Your task to perform on an android device: toggle location history Image 0: 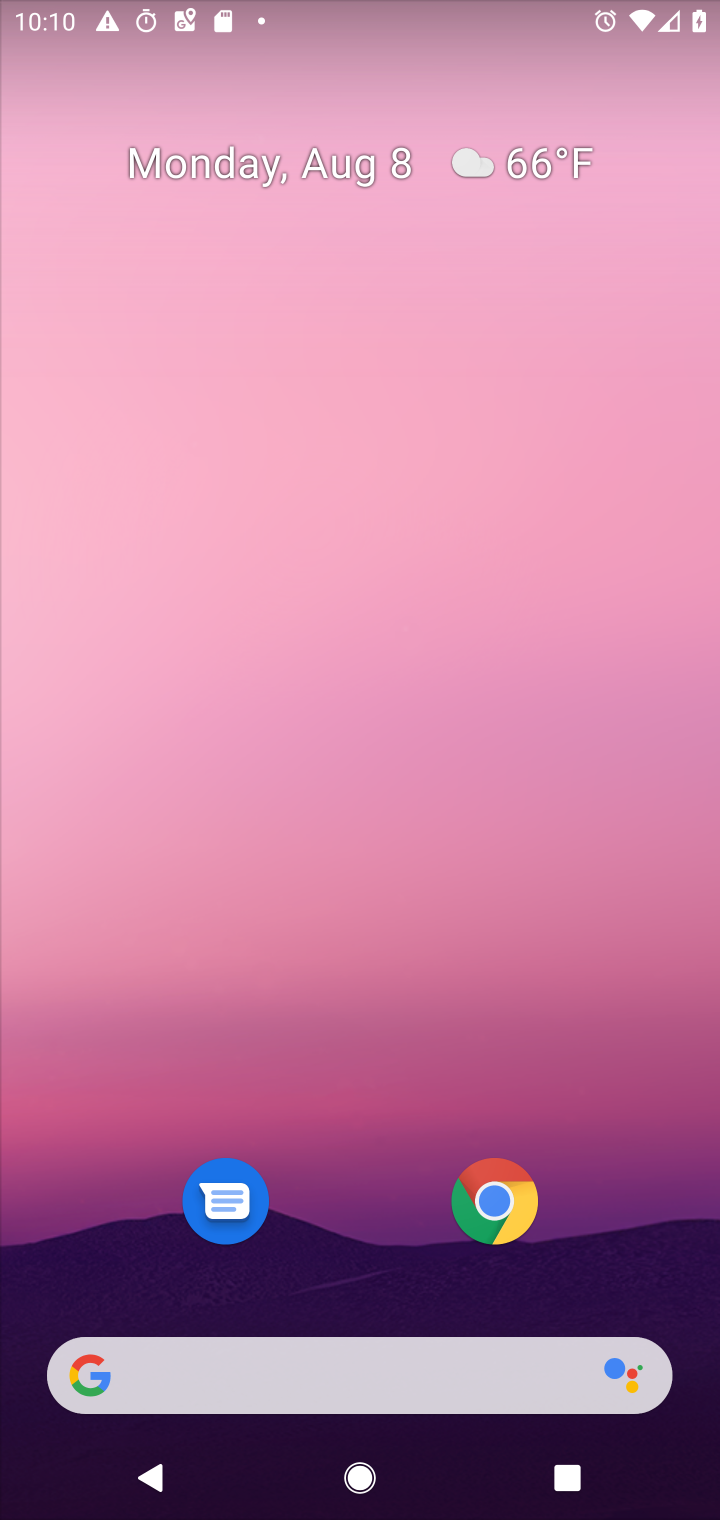
Step 0: press home button
Your task to perform on an android device: toggle location history Image 1: 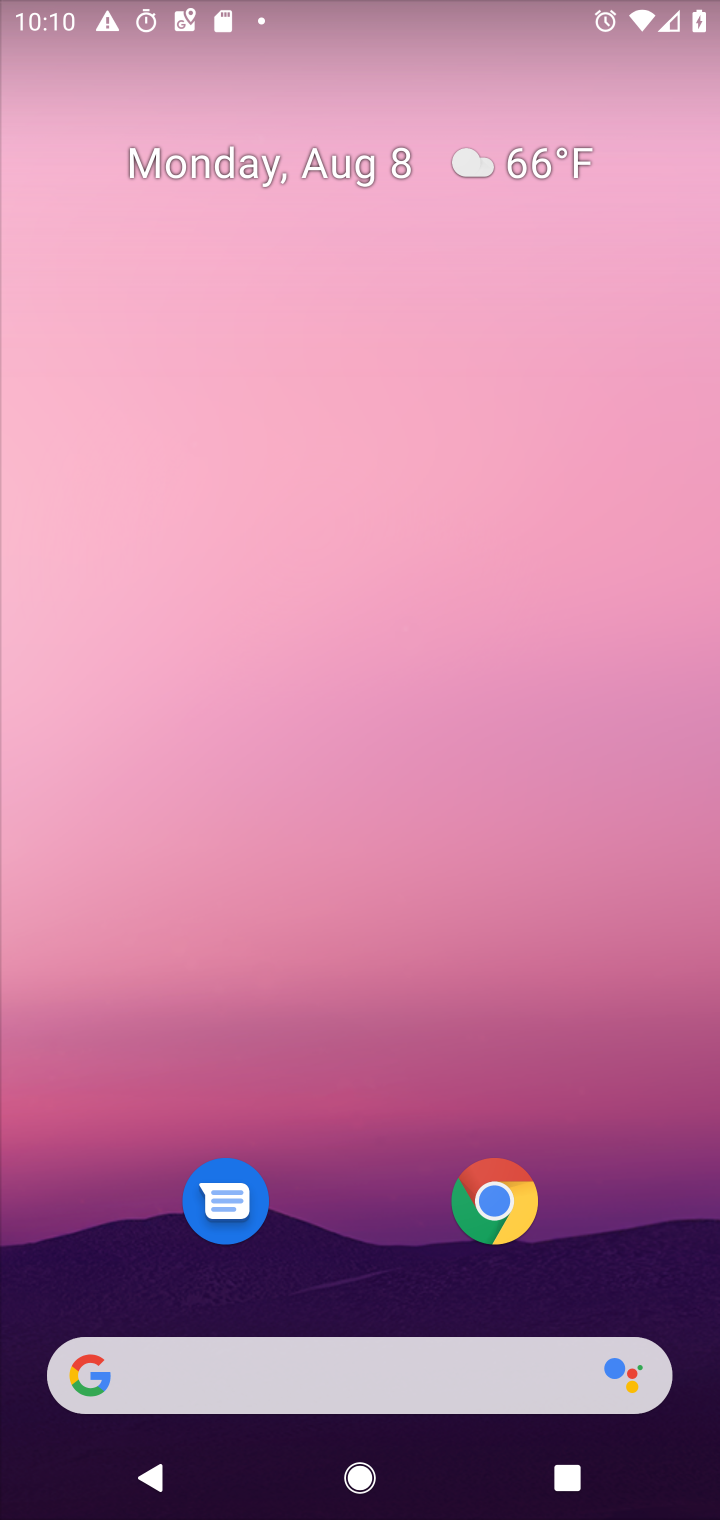
Step 1: drag from (367, 1234) to (424, 310)
Your task to perform on an android device: toggle location history Image 2: 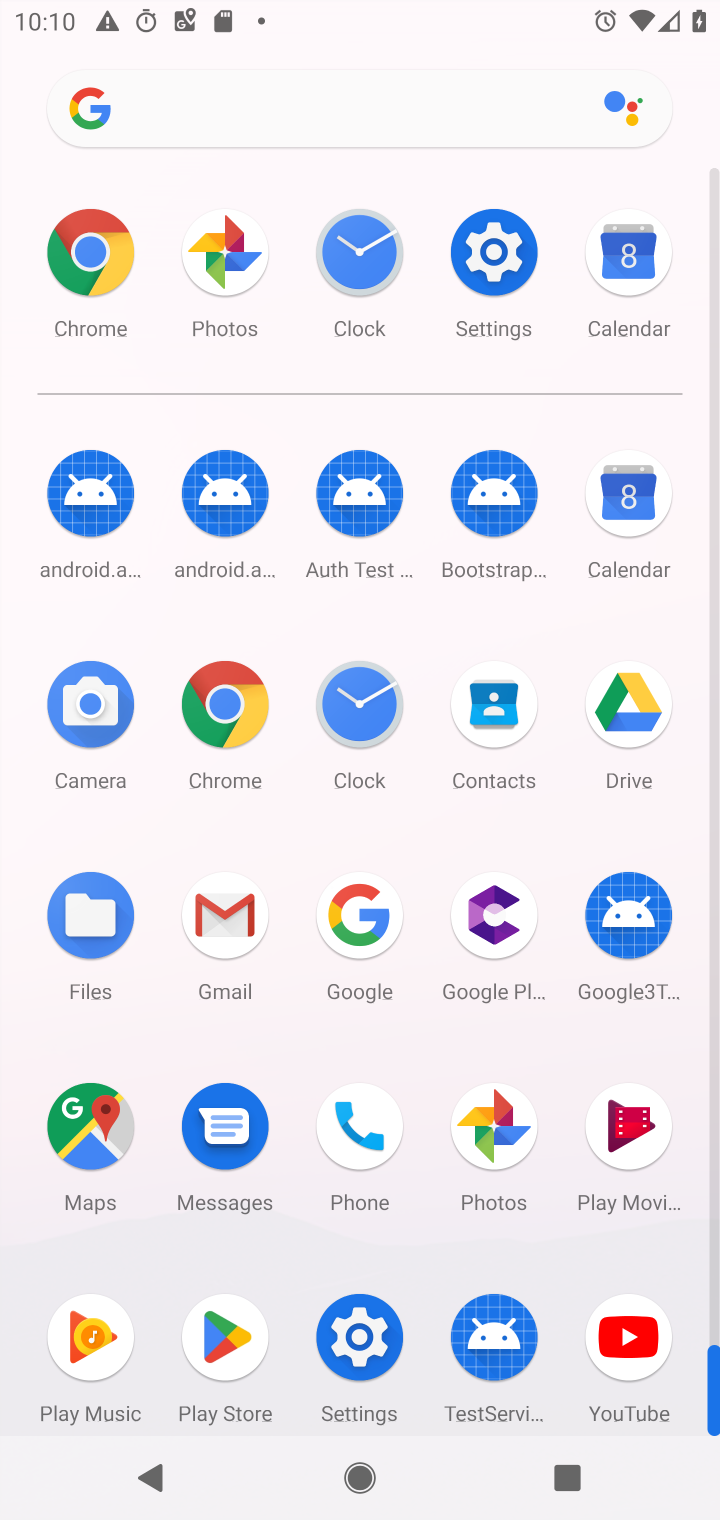
Step 2: click (496, 245)
Your task to perform on an android device: toggle location history Image 3: 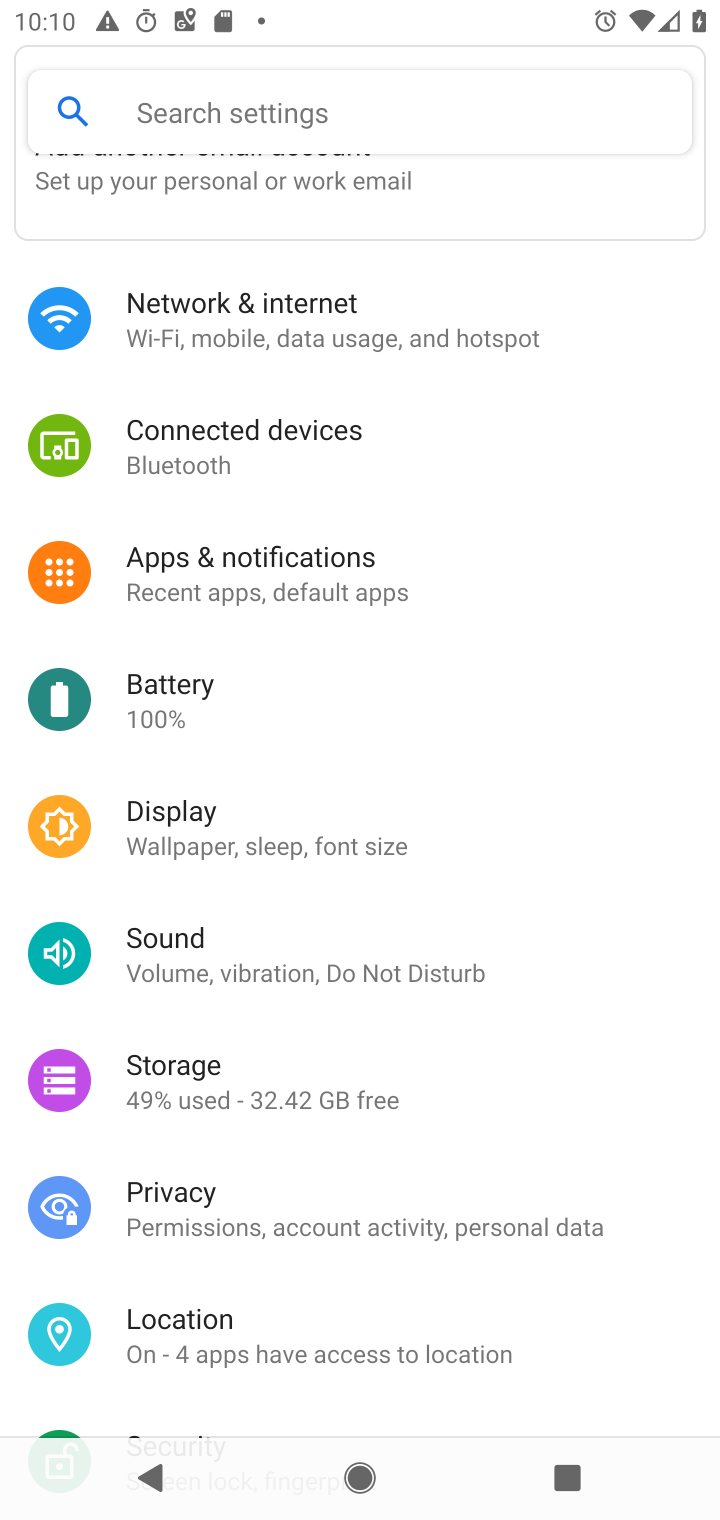
Step 3: drag from (605, 616) to (614, 484)
Your task to perform on an android device: toggle location history Image 4: 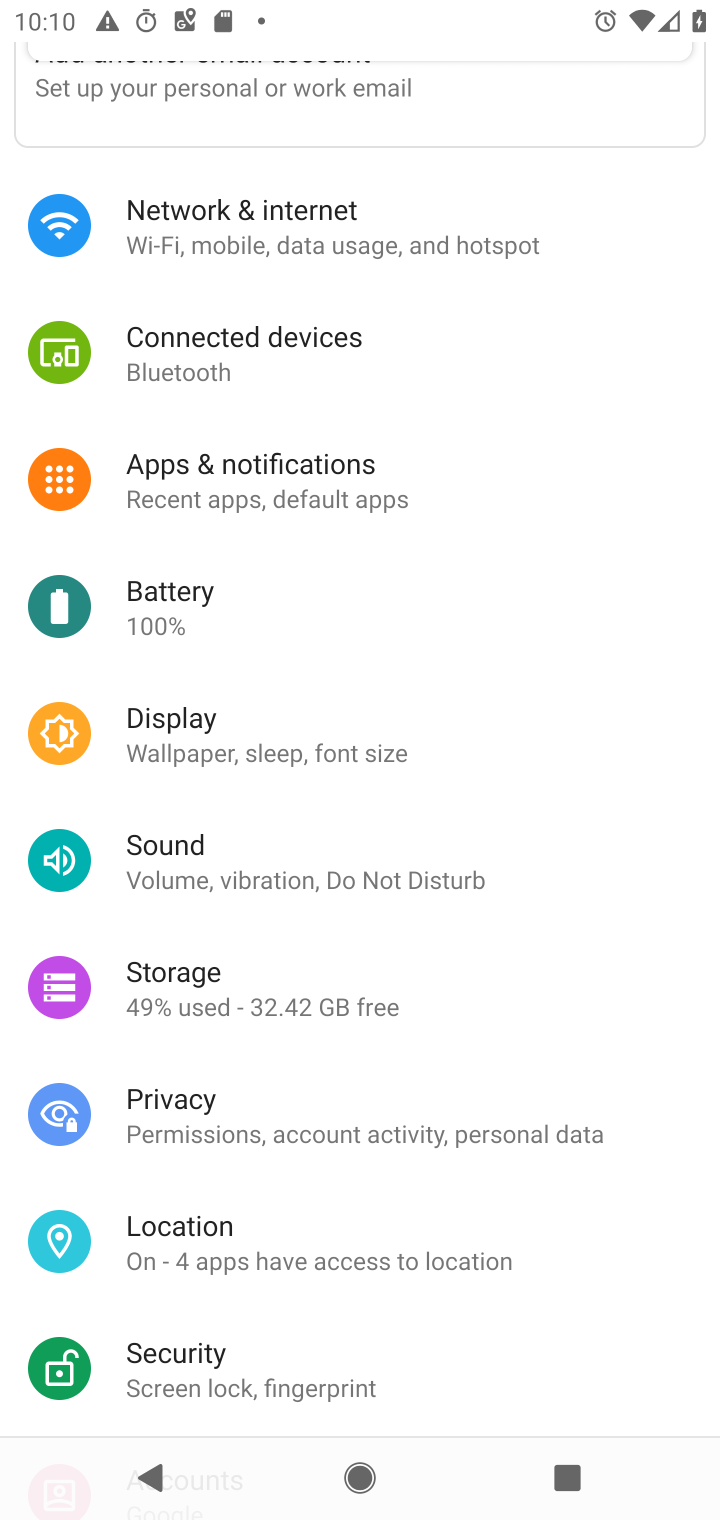
Step 4: drag from (610, 817) to (608, 573)
Your task to perform on an android device: toggle location history Image 5: 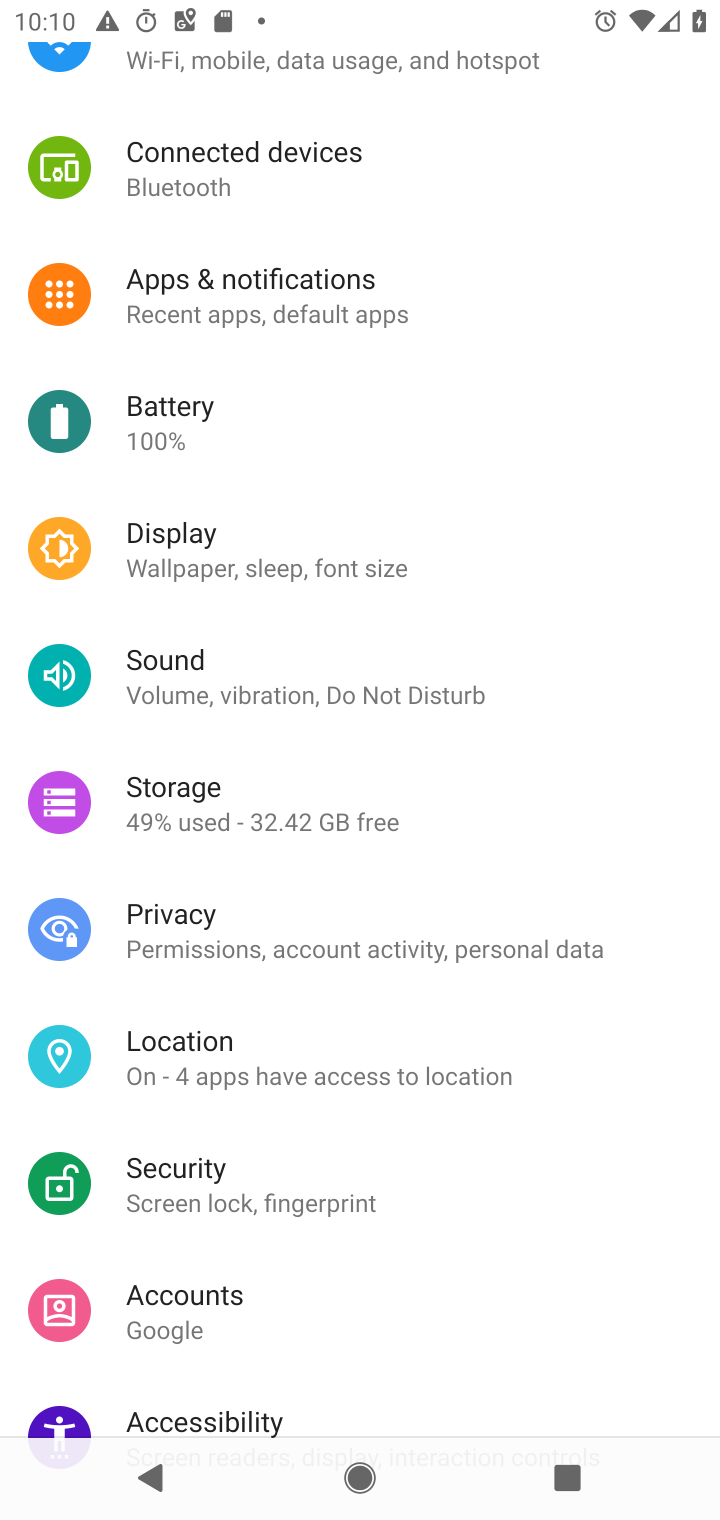
Step 5: drag from (622, 870) to (634, 584)
Your task to perform on an android device: toggle location history Image 6: 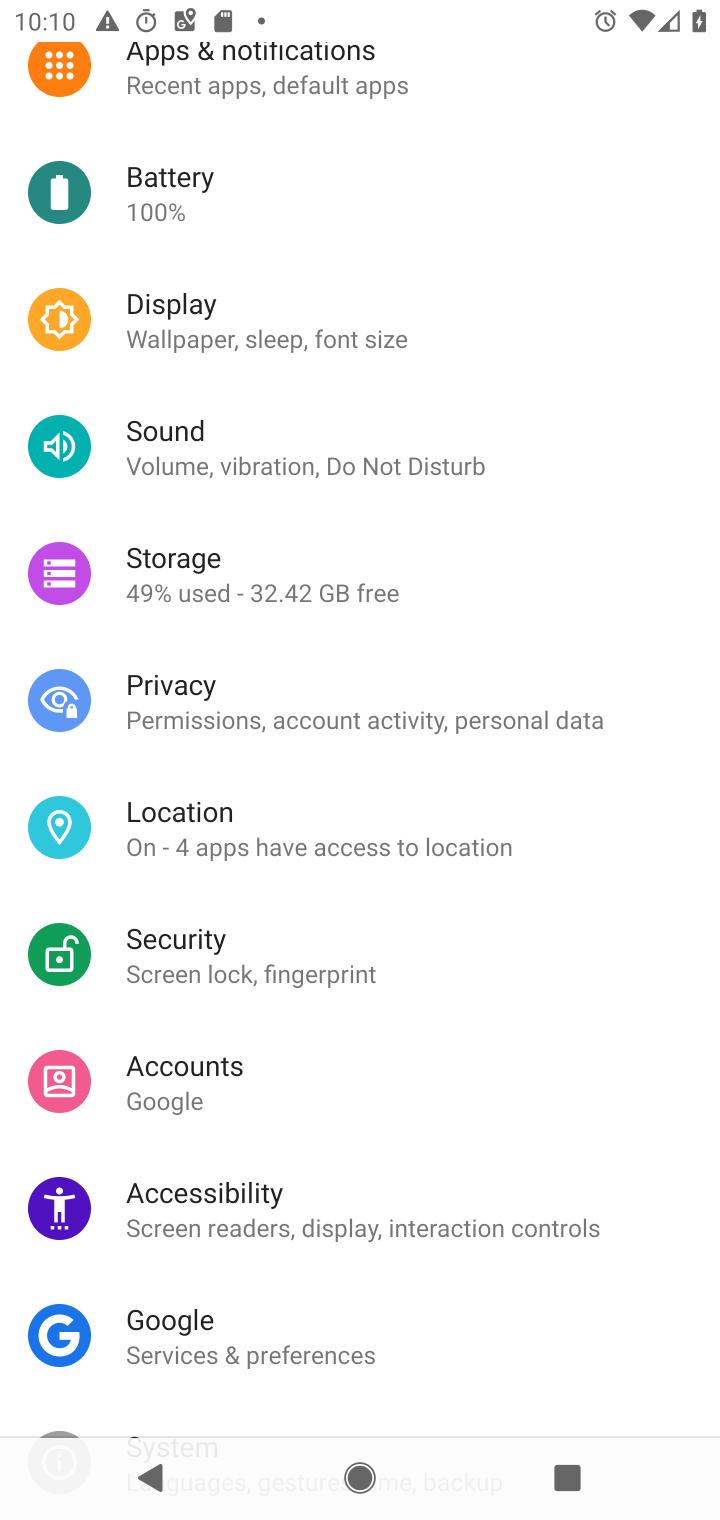
Step 6: click (235, 819)
Your task to perform on an android device: toggle location history Image 7: 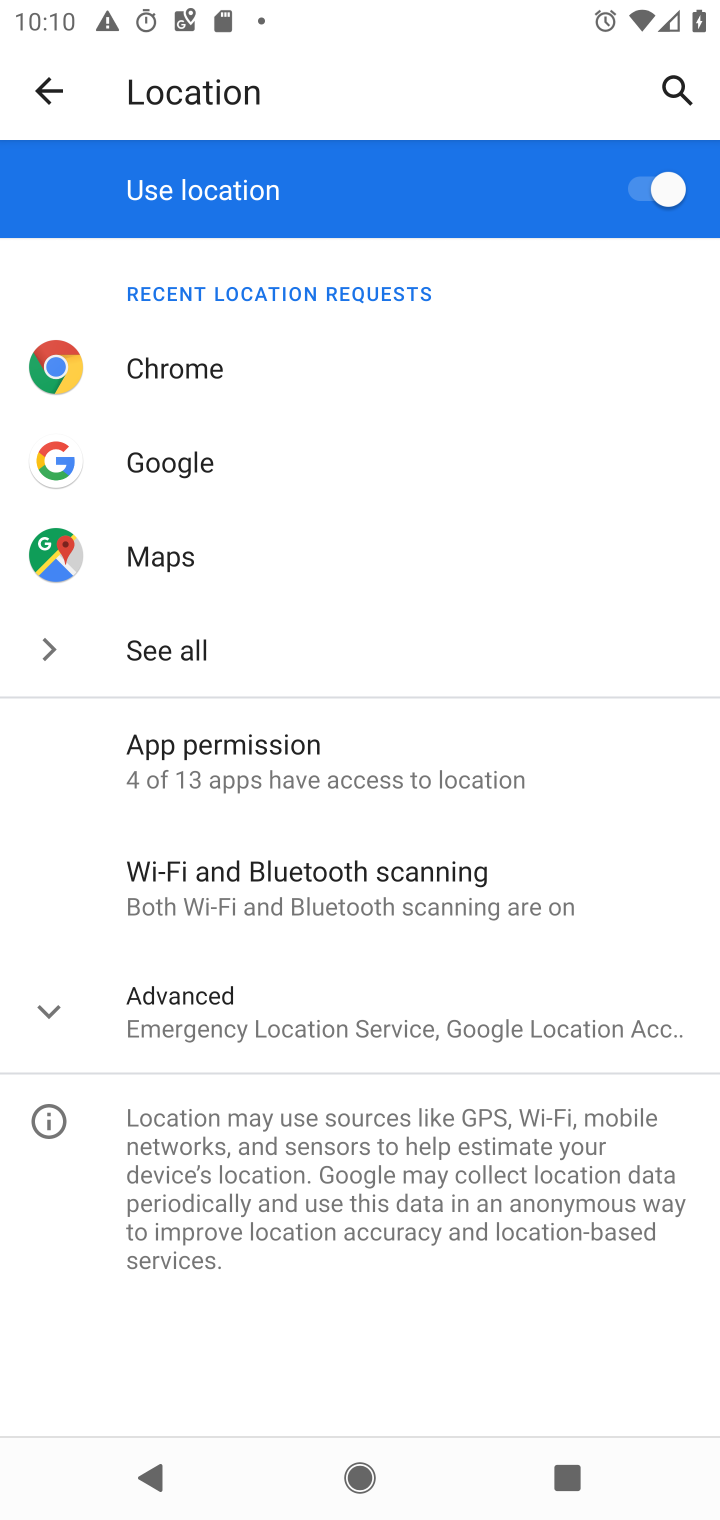
Step 7: click (204, 1018)
Your task to perform on an android device: toggle location history Image 8: 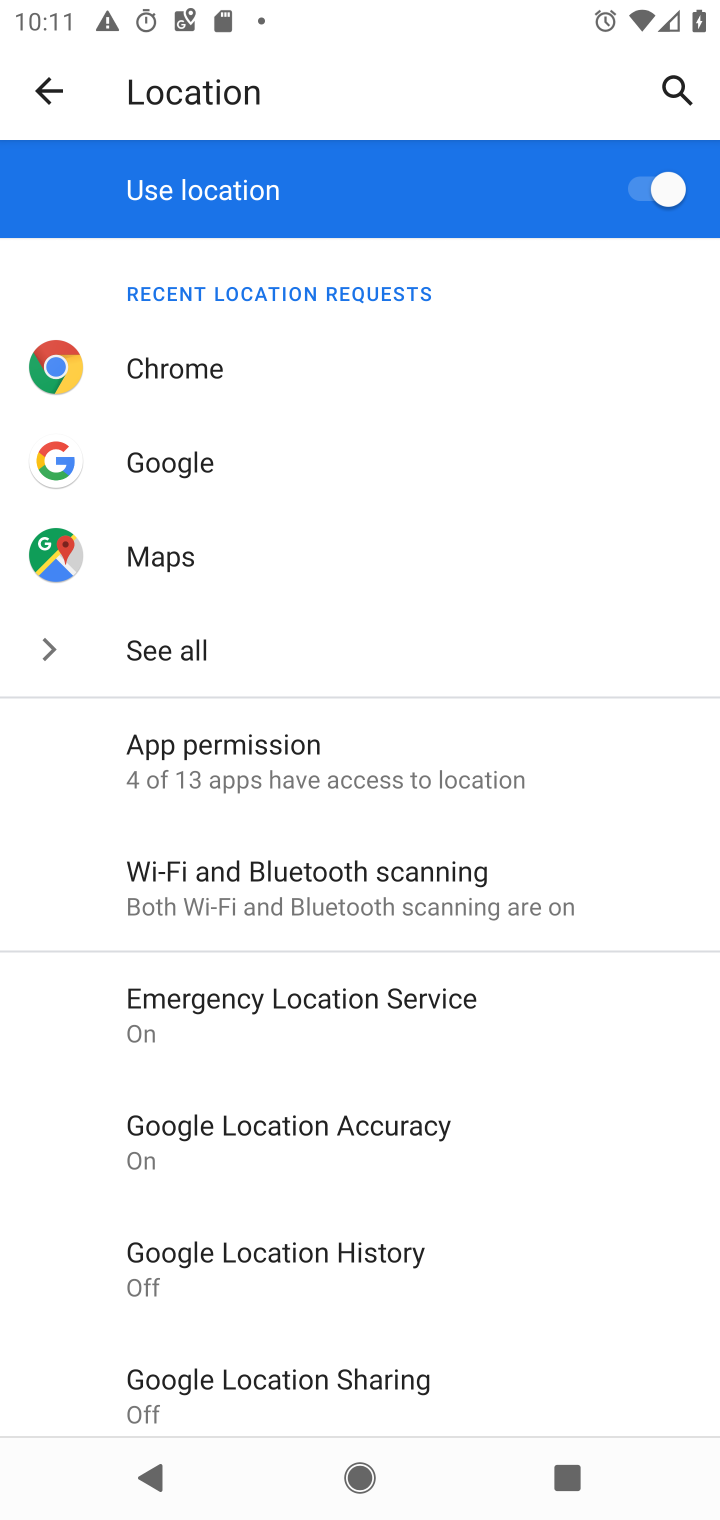
Step 8: click (228, 1268)
Your task to perform on an android device: toggle location history Image 9: 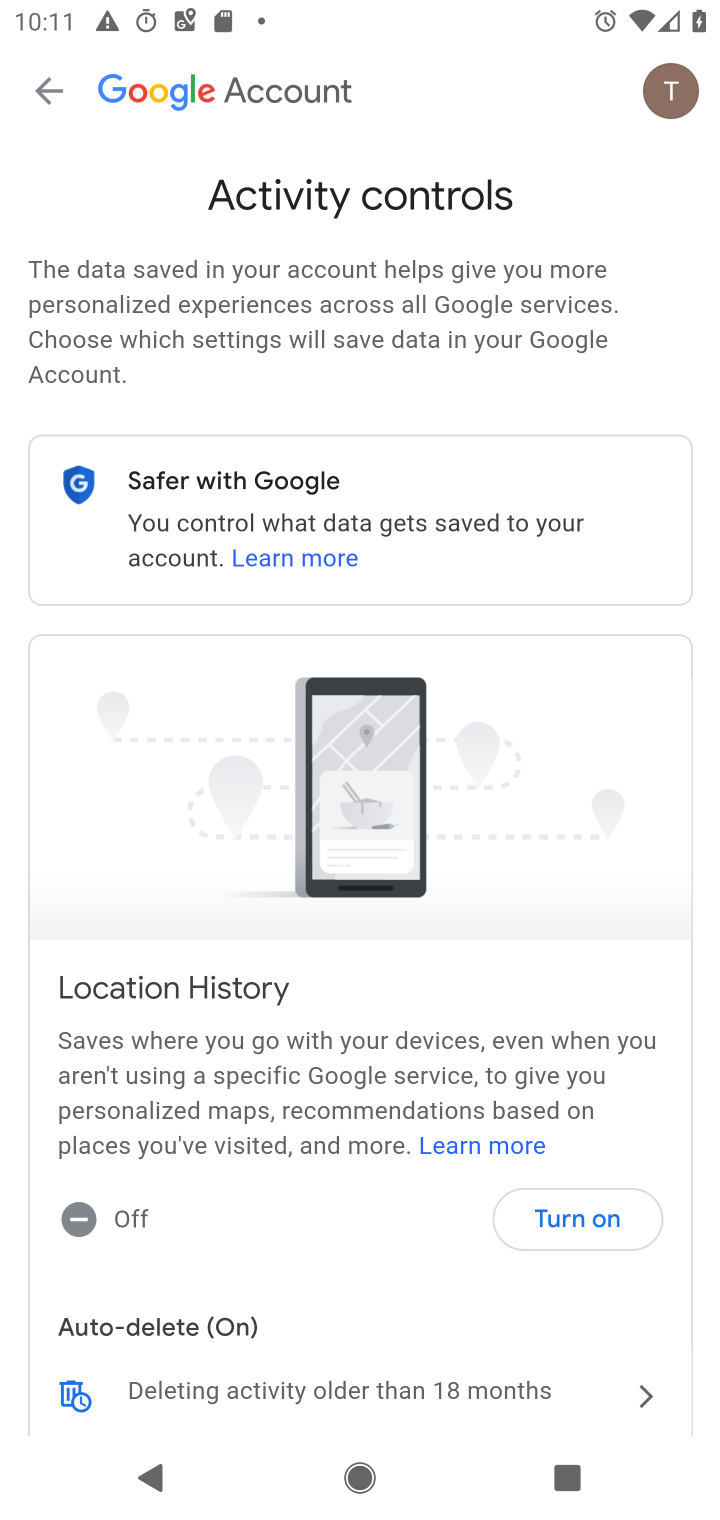
Step 9: click (571, 1222)
Your task to perform on an android device: toggle location history Image 10: 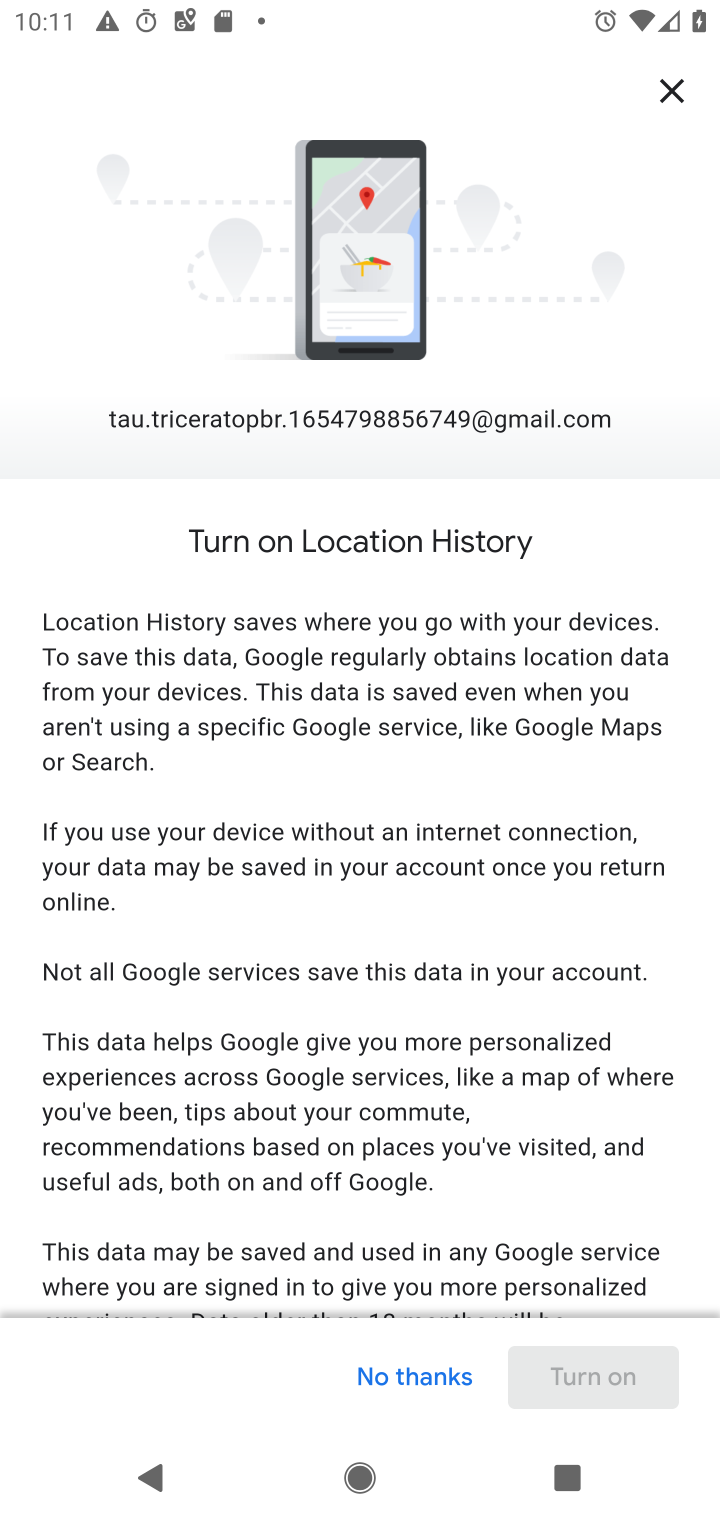
Step 10: drag from (496, 1111) to (543, 960)
Your task to perform on an android device: toggle location history Image 11: 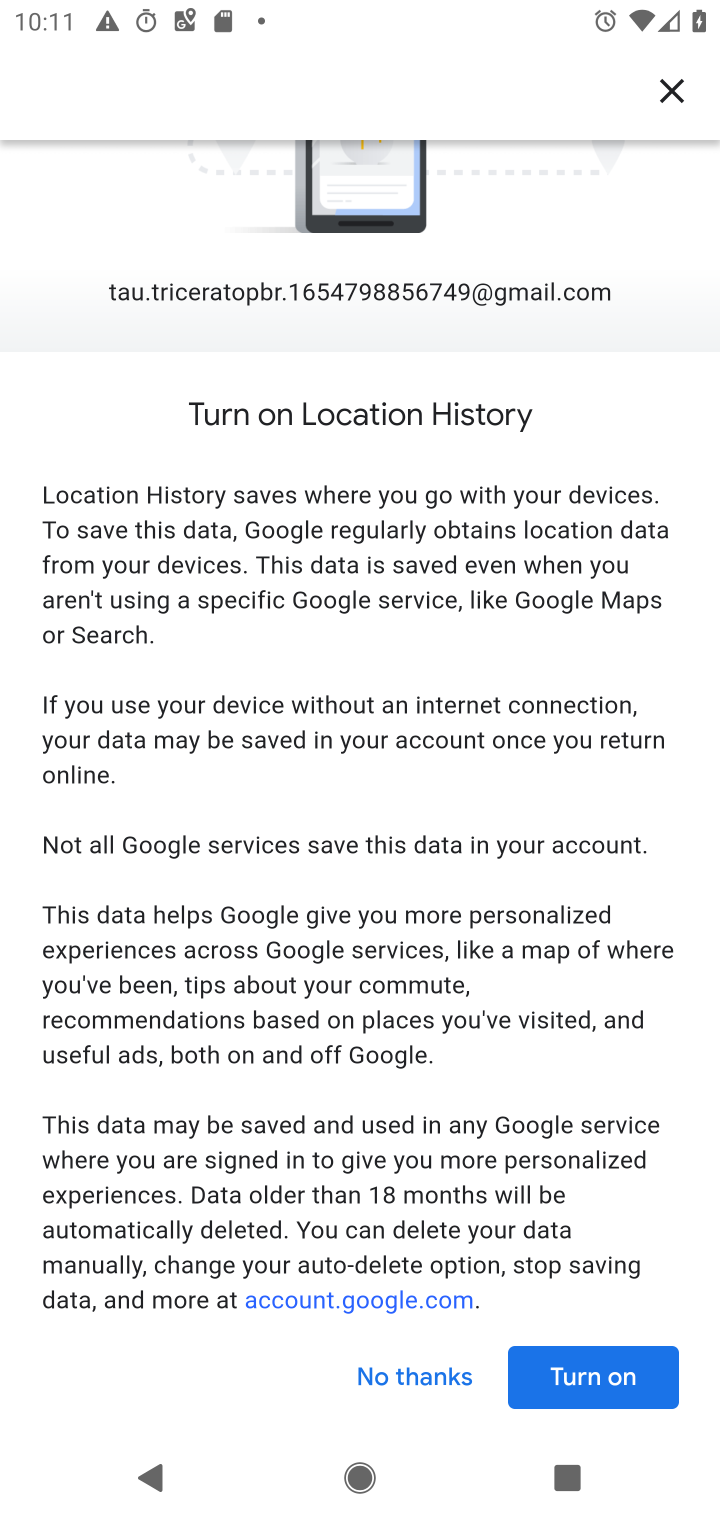
Step 11: drag from (528, 1141) to (555, 972)
Your task to perform on an android device: toggle location history Image 12: 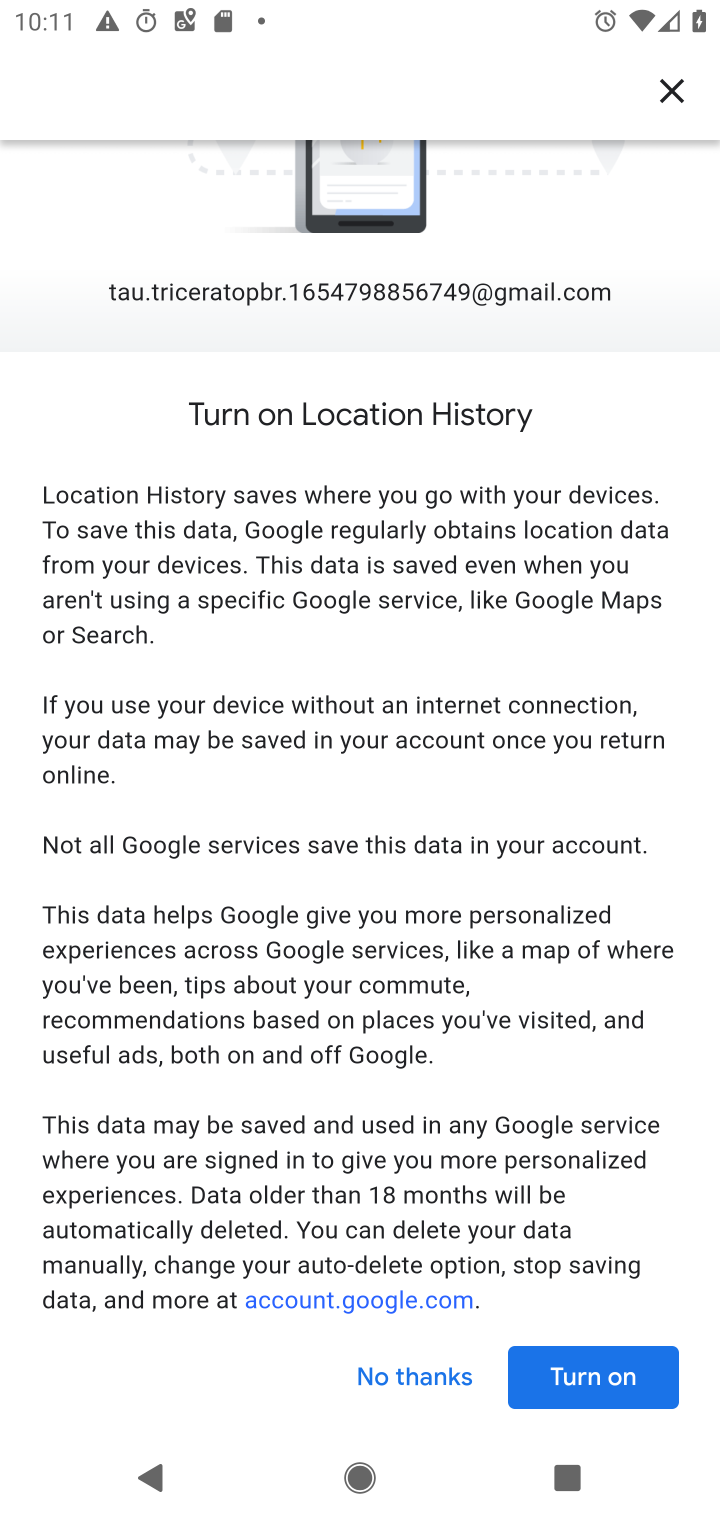
Step 12: click (586, 1382)
Your task to perform on an android device: toggle location history Image 13: 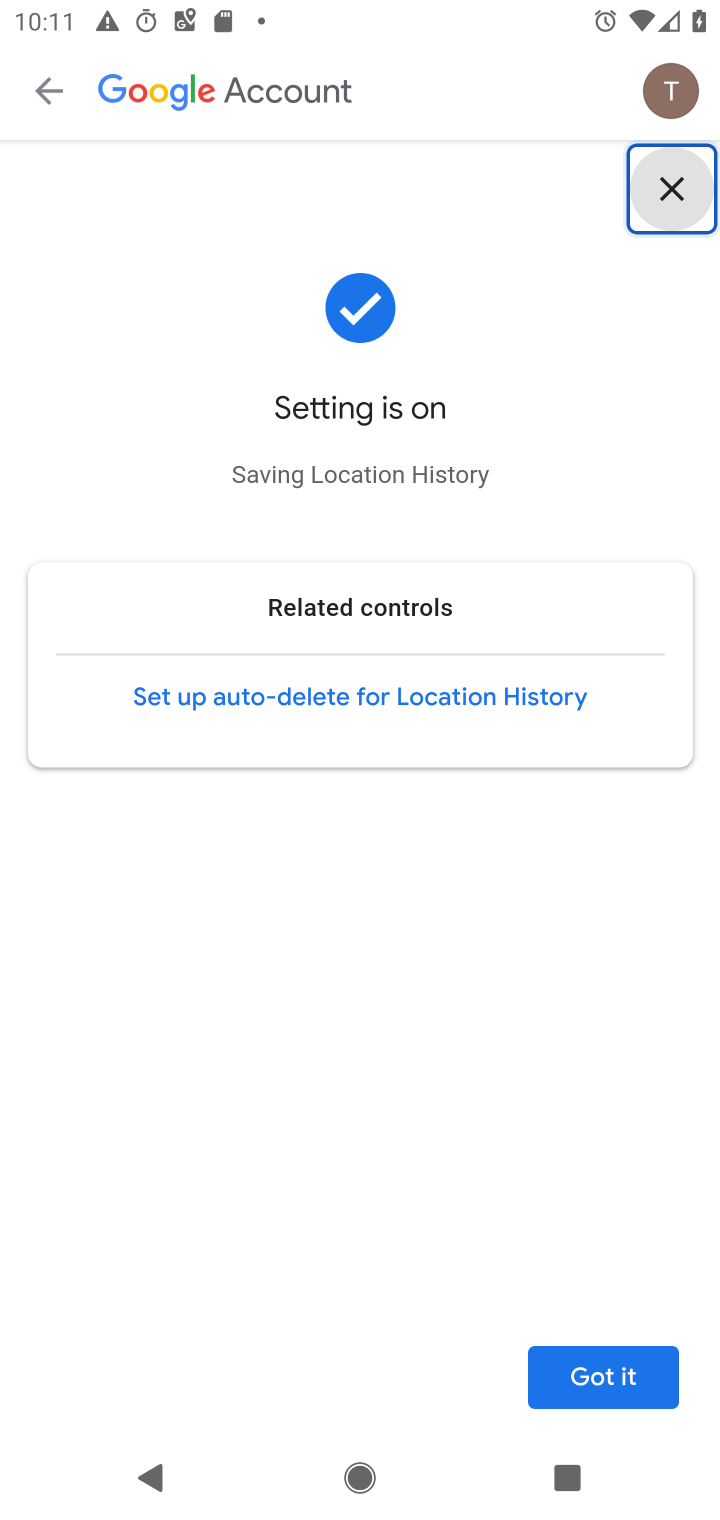
Step 13: task complete